Your task to perform on an android device: Go to Yahoo.com Image 0: 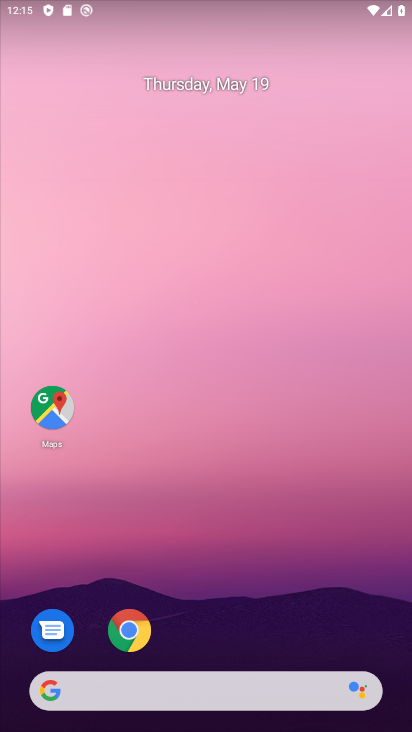
Step 0: click (124, 623)
Your task to perform on an android device: Go to Yahoo.com Image 1: 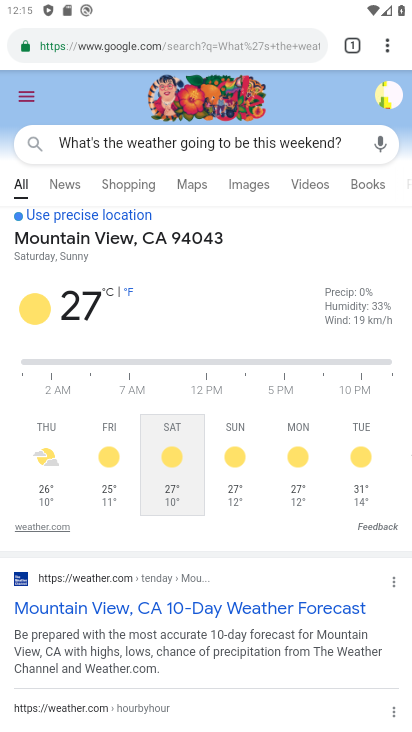
Step 1: click (198, 43)
Your task to perform on an android device: Go to Yahoo.com Image 2: 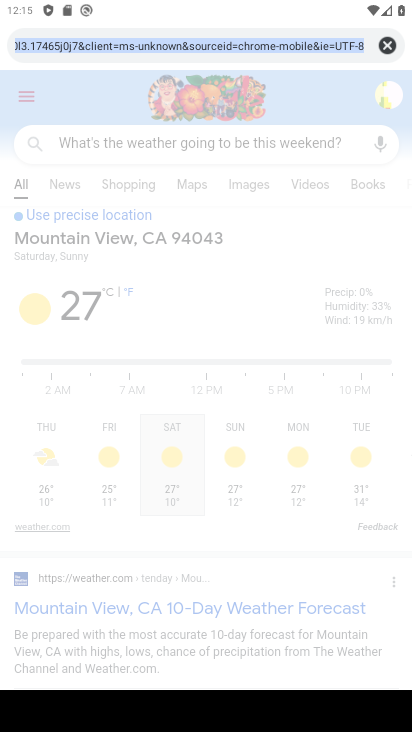
Step 2: type "Yahoo.com"
Your task to perform on an android device: Go to Yahoo.com Image 3: 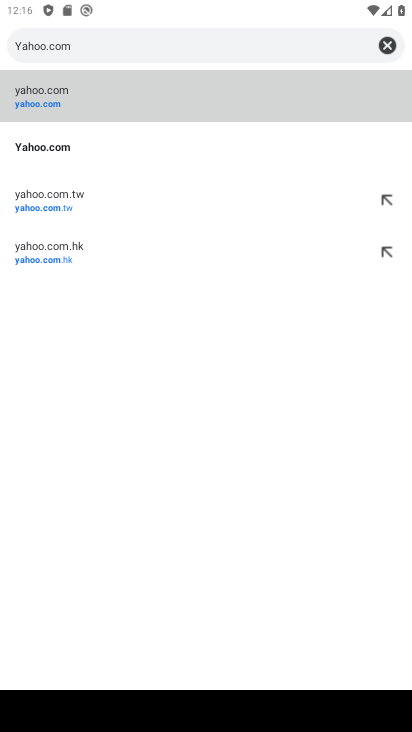
Step 3: click (65, 79)
Your task to perform on an android device: Go to Yahoo.com Image 4: 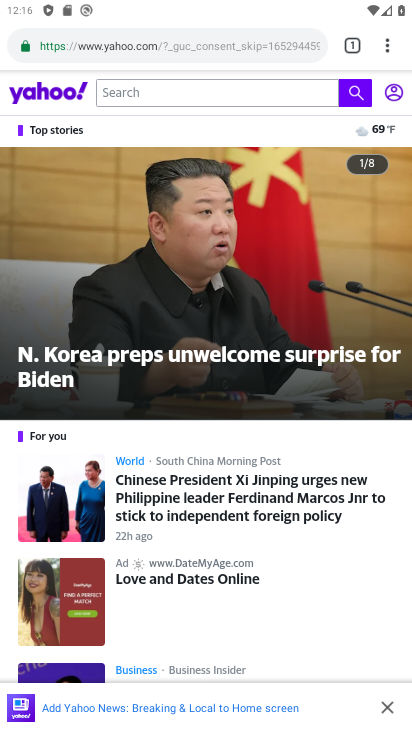
Step 4: task complete